Your task to perform on an android device: Open sound settings Image 0: 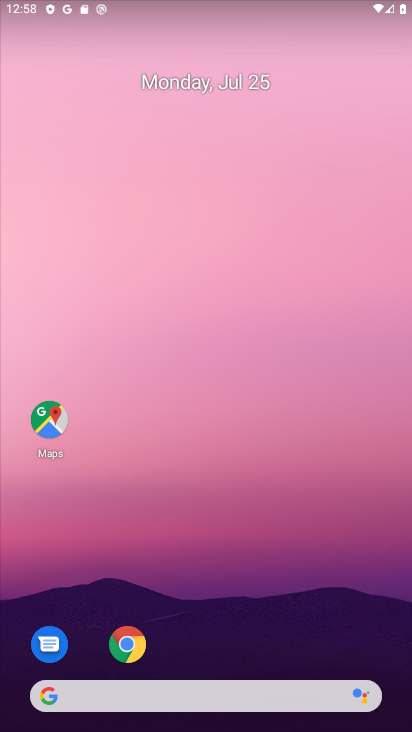
Step 0: drag from (204, 654) to (206, 135)
Your task to perform on an android device: Open sound settings Image 1: 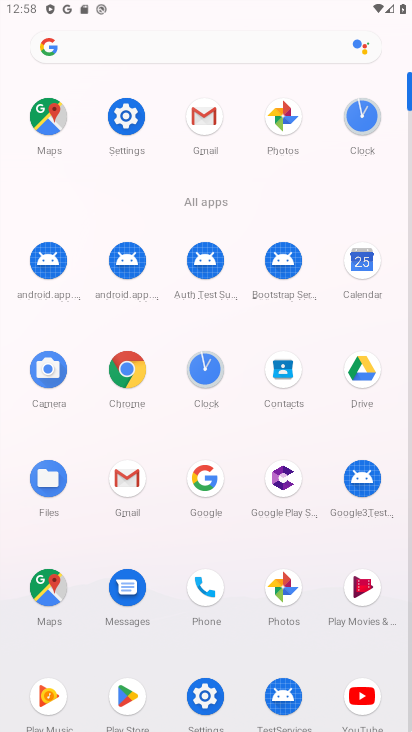
Step 1: click (134, 121)
Your task to perform on an android device: Open sound settings Image 2: 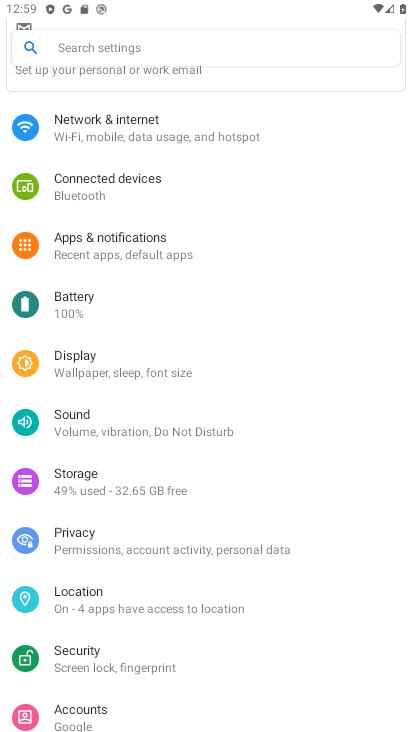
Step 2: click (105, 427)
Your task to perform on an android device: Open sound settings Image 3: 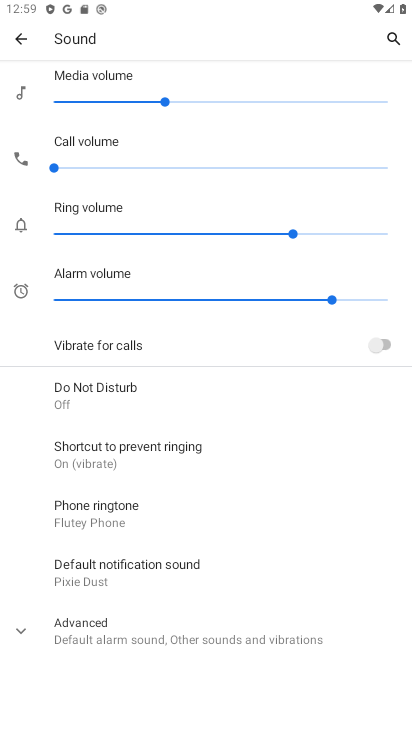
Step 3: task complete